Your task to perform on an android device: turn on location history Image 0: 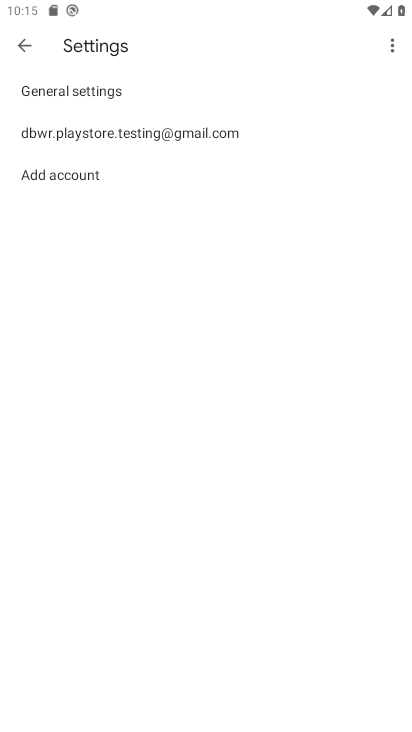
Step 0: press home button
Your task to perform on an android device: turn on location history Image 1: 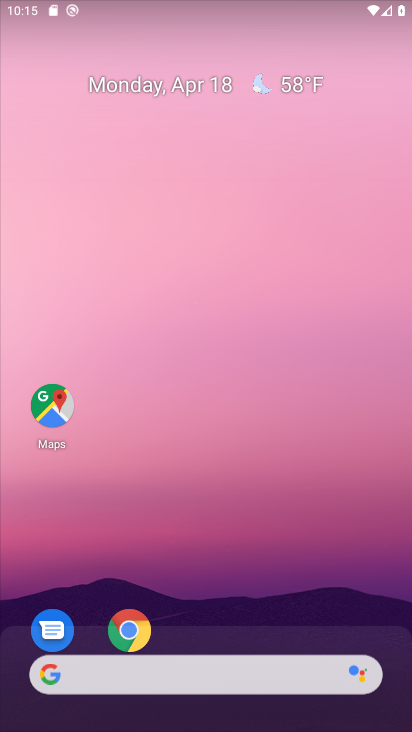
Step 1: drag from (209, 661) to (209, 25)
Your task to perform on an android device: turn on location history Image 2: 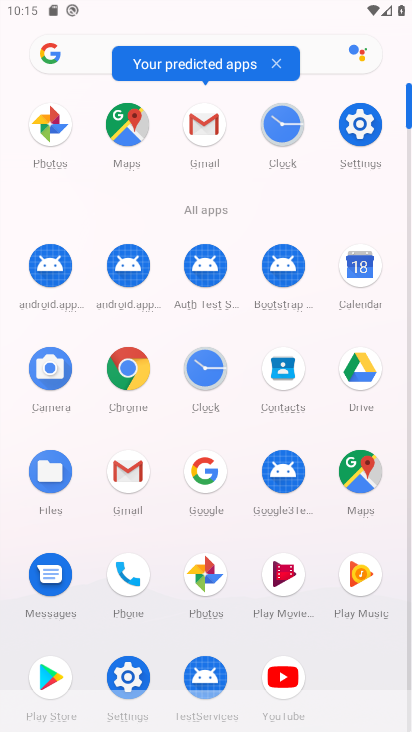
Step 2: click (360, 128)
Your task to perform on an android device: turn on location history Image 3: 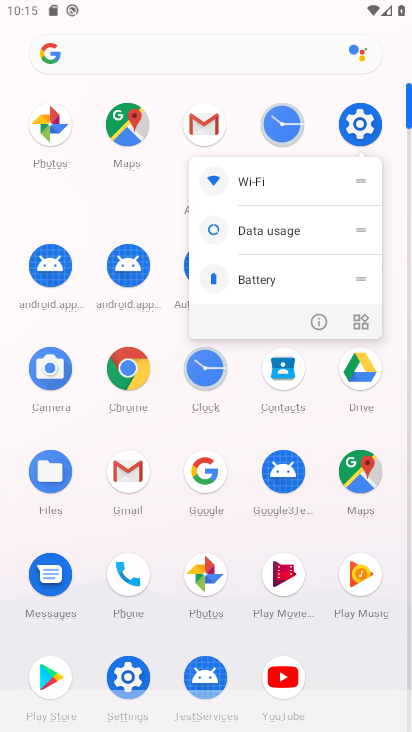
Step 3: click (360, 128)
Your task to perform on an android device: turn on location history Image 4: 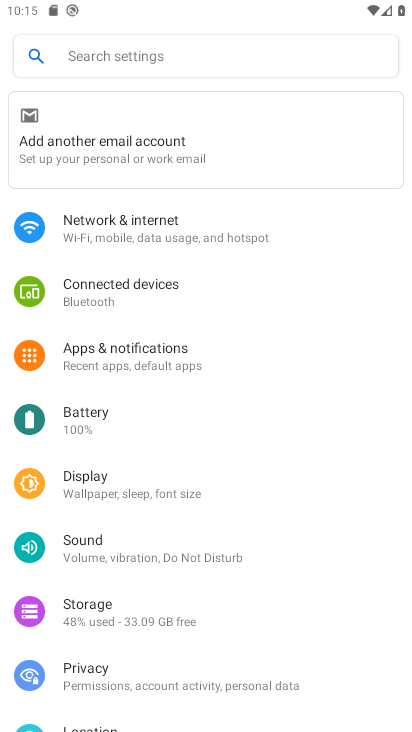
Step 4: click (68, 628)
Your task to perform on an android device: turn on location history Image 5: 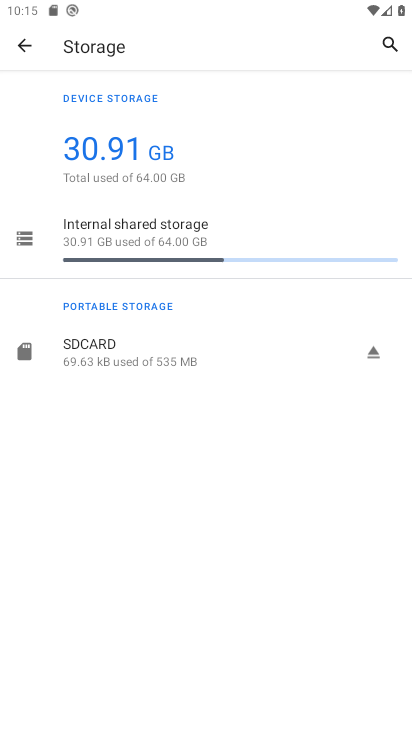
Step 5: click (25, 44)
Your task to perform on an android device: turn on location history Image 6: 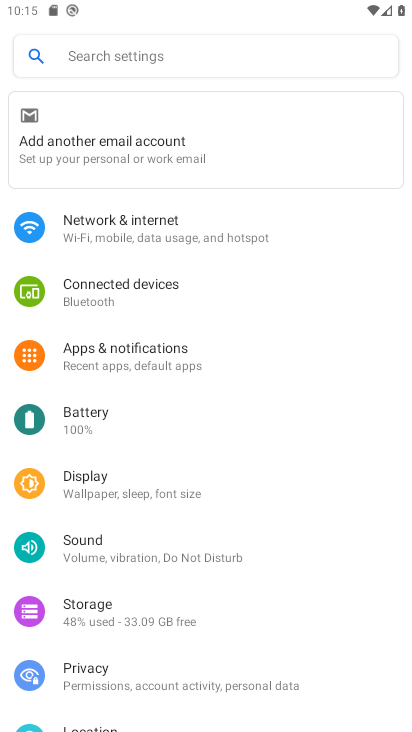
Step 6: click (72, 725)
Your task to perform on an android device: turn on location history Image 7: 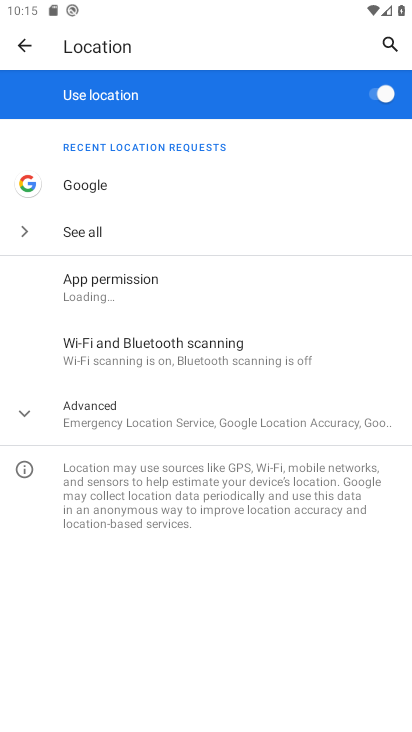
Step 7: click (110, 405)
Your task to perform on an android device: turn on location history Image 8: 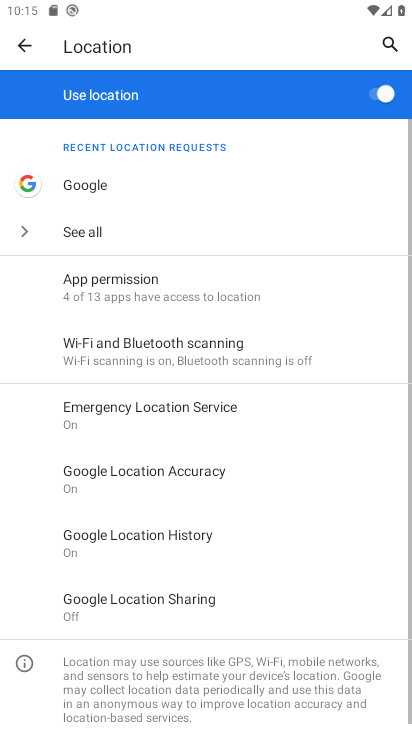
Step 8: click (153, 541)
Your task to perform on an android device: turn on location history Image 9: 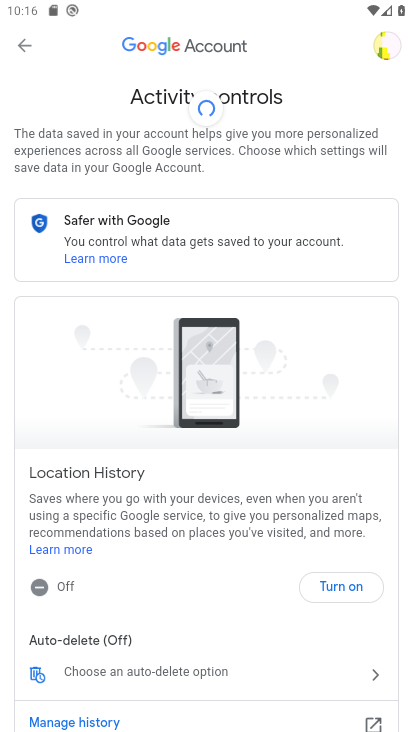
Step 9: click (330, 585)
Your task to perform on an android device: turn on location history Image 10: 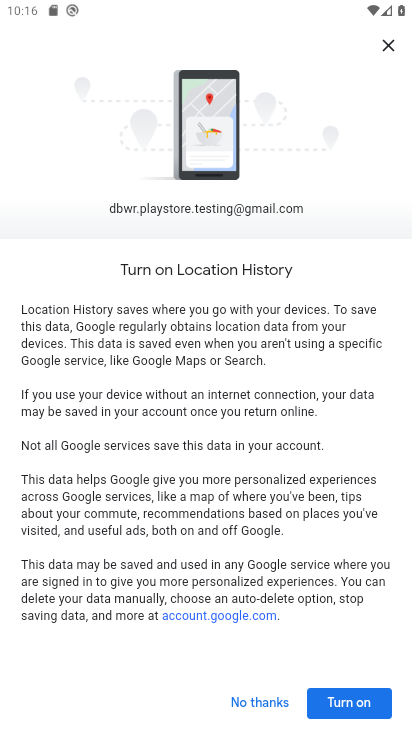
Step 10: click (337, 693)
Your task to perform on an android device: turn on location history Image 11: 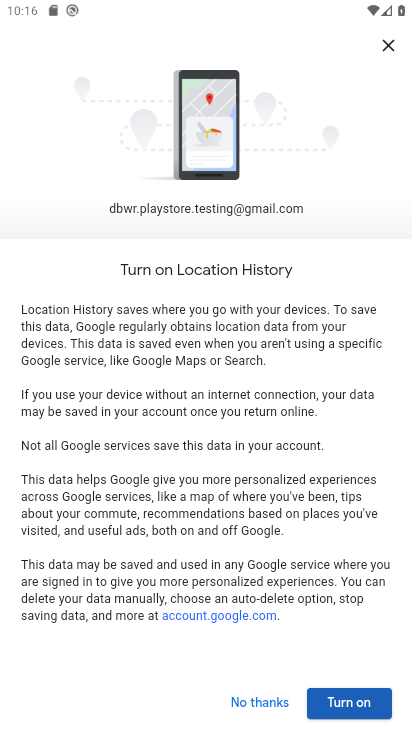
Step 11: click (339, 699)
Your task to perform on an android device: turn on location history Image 12: 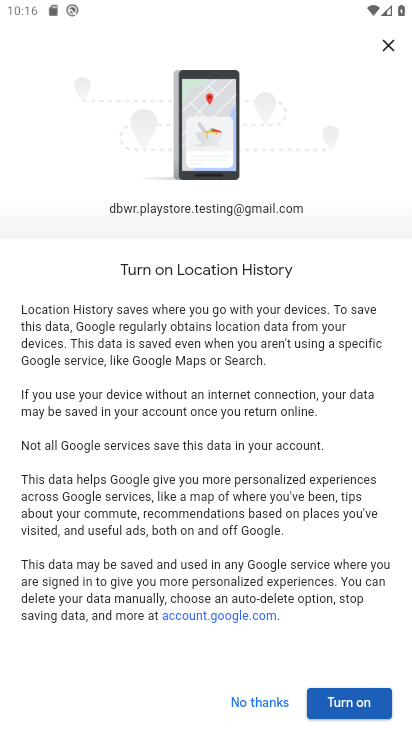
Step 12: click (347, 702)
Your task to perform on an android device: turn on location history Image 13: 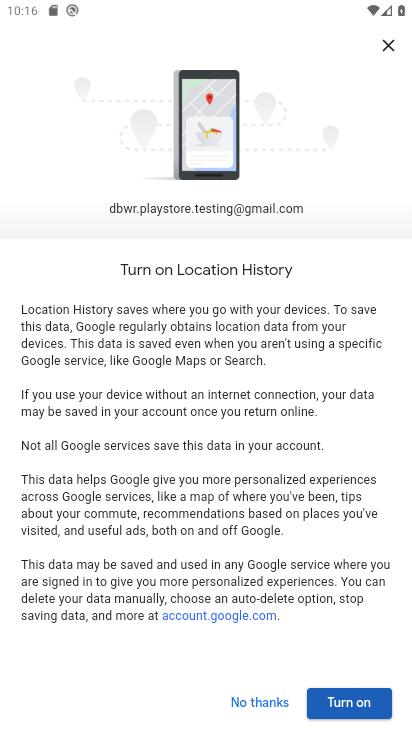
Step 13: click (351, 699)
Your task to perform on an android device: turn on location history Image 14: 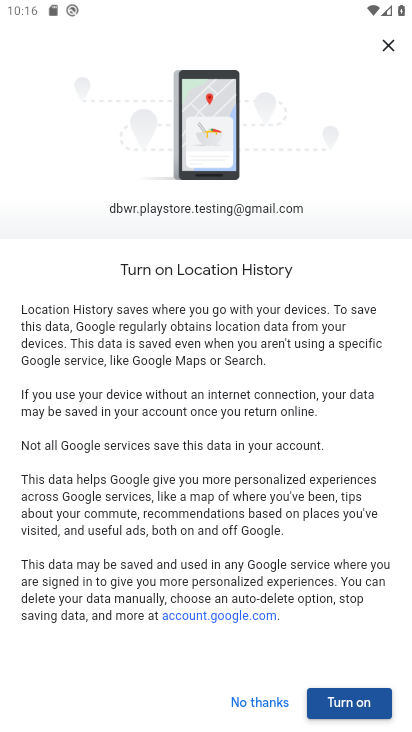
Step 14: click (351, 699)
Your task to perform on an android device: turn on location history Image 15: 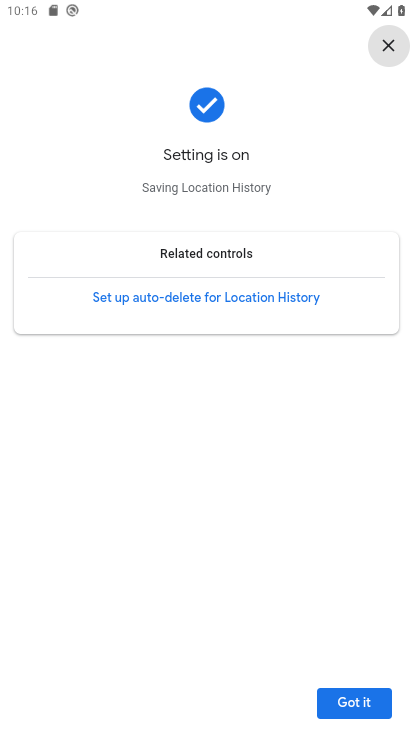
Step 15: click (350, 698)
Your task to perform on an android device: turn on location history Image 16: 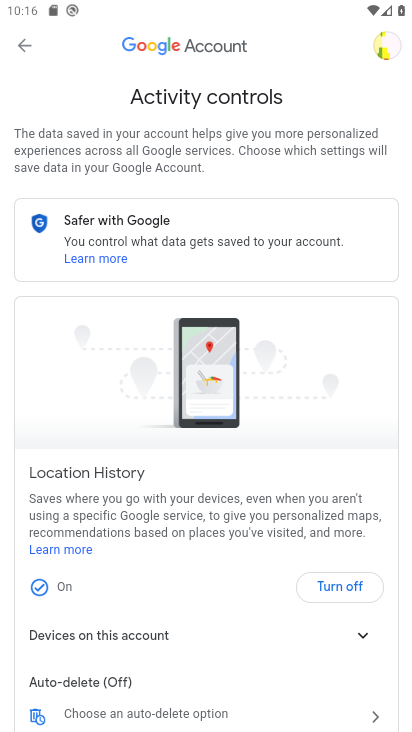
Step 16: task complete